Your task to perform on an android device: change timer sound Image 0: 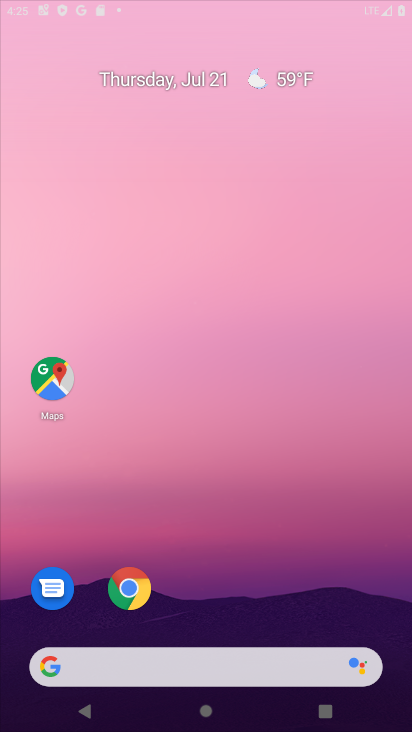
Step 0: press home button
Your task to perform on an android device: change timer sound Image 1: 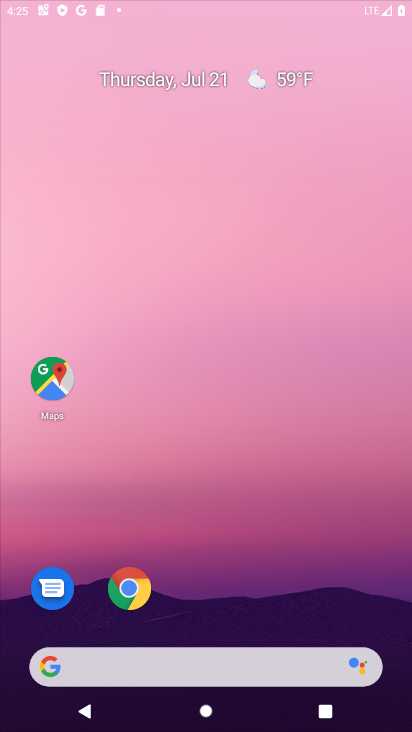
Step 1: drag from (229, 713) to (231, 309)
Your task to perform on an android device: change timer sound Image 2: 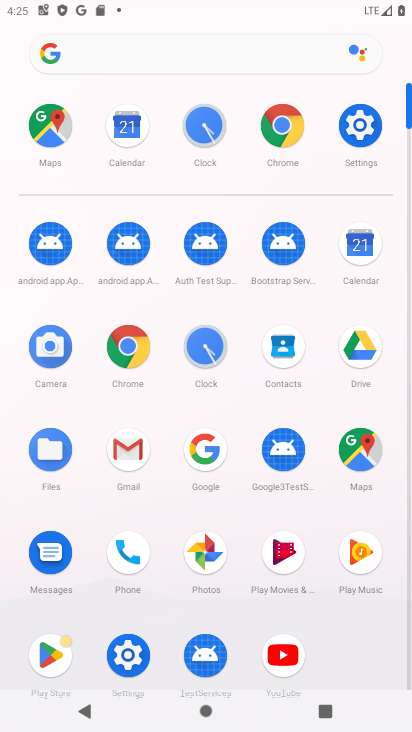
Step 2: click (200, 341)
Your task to perform on an android device: change timer sound Image 3: 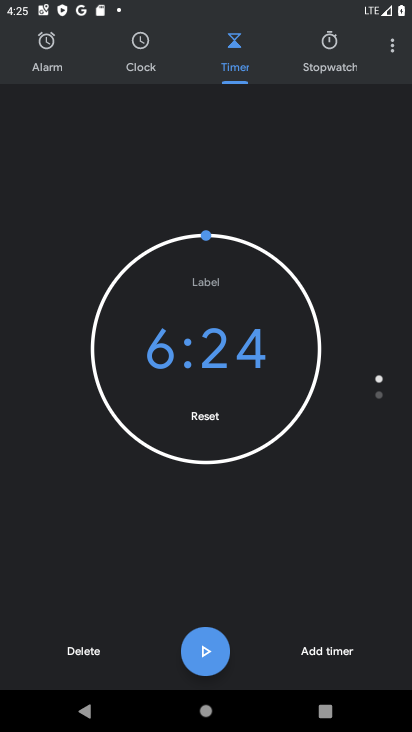
Step 3: click (393, 52)
Your task to perform on an android device: change timer sound Image 4: 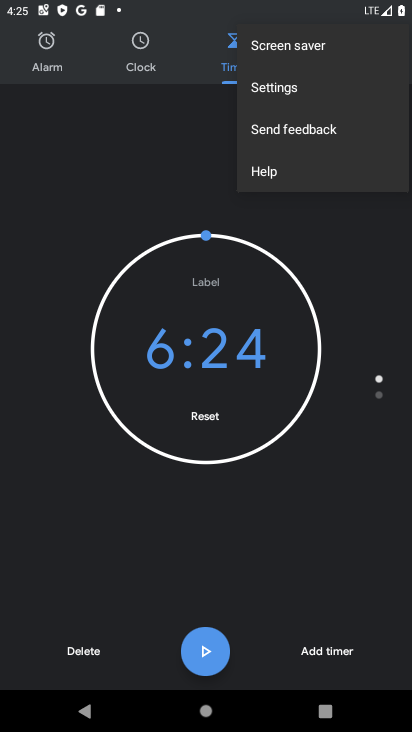
Step 4: click (283, 86)
Your task to perform on an android device: change timer sound Image 5: 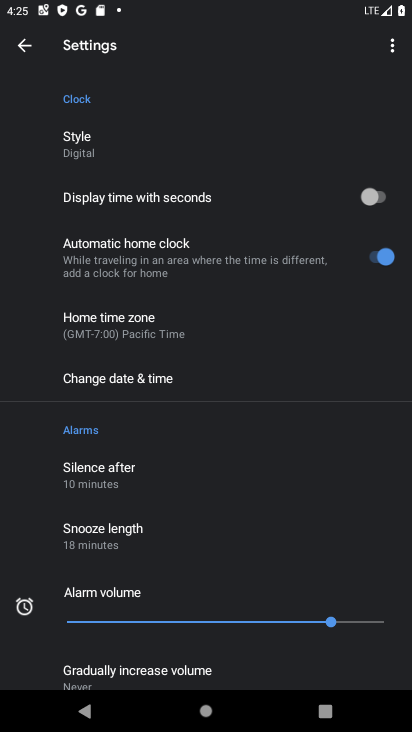
Step 5: drag from (119, 554) to (133, 386)
Your task to perform on an android device: change timer sound Image 6: 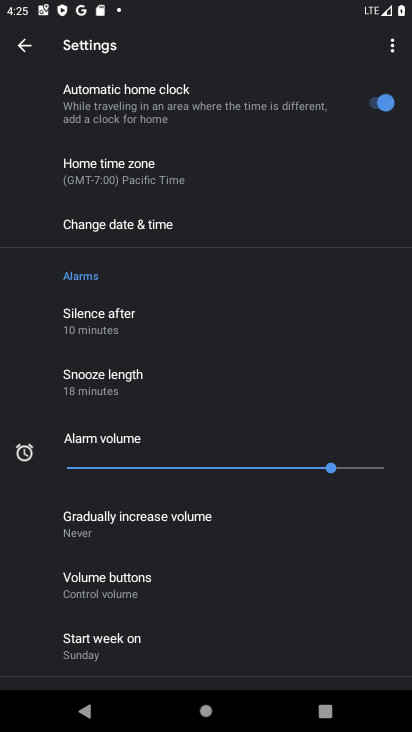
Step 6: drag from (180, 643) to (207, 359)
Your task to perform on an android device: change timer sound Image 7: 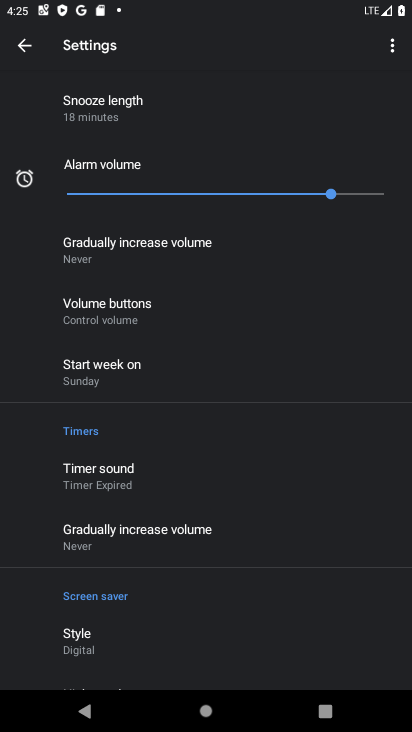
Step 7: click (111, 476)
Your task to perform on an android device: change timer sound Image 8: 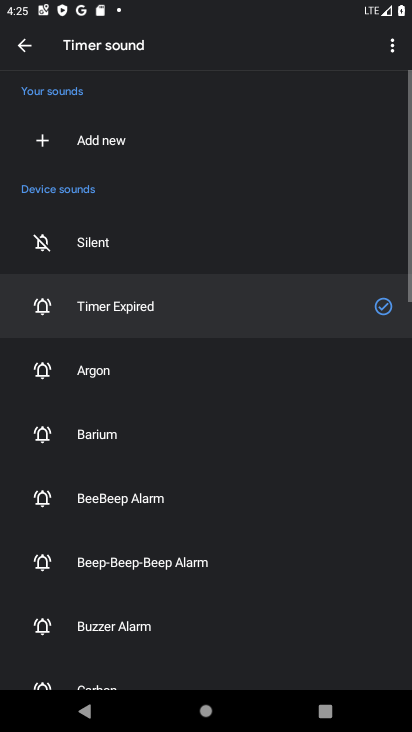
Step 8: click (99, 560)
Your task to perform on an android device: change timer sound Image 9: 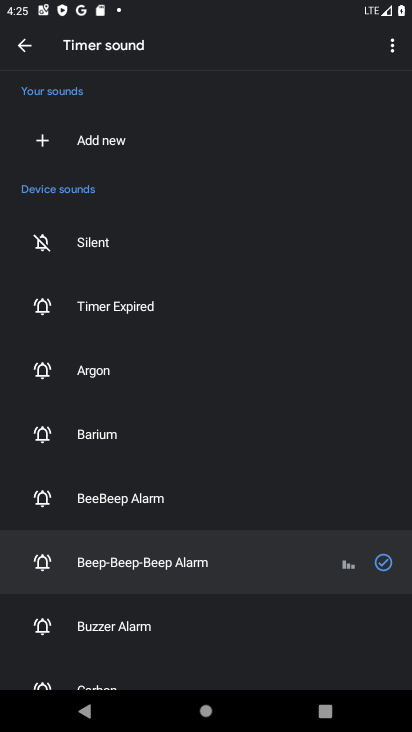
Step 9: task complete